Your task to perform on an android device: Open display settings Image 0: 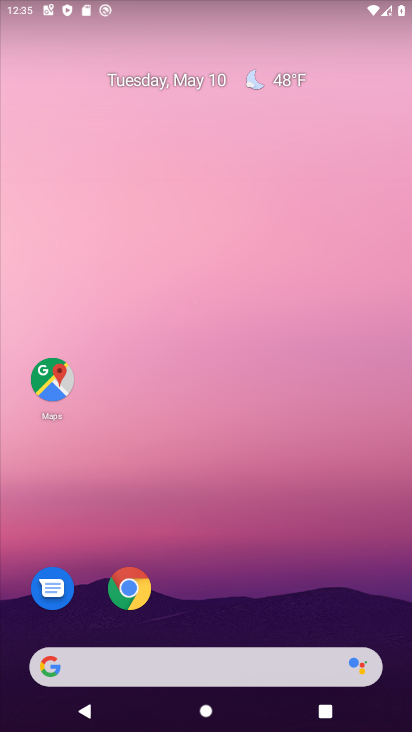
Step 0: drag from (253, 619) to (277, 190)
Your task to perform on an android device: Open display settings Image 1: 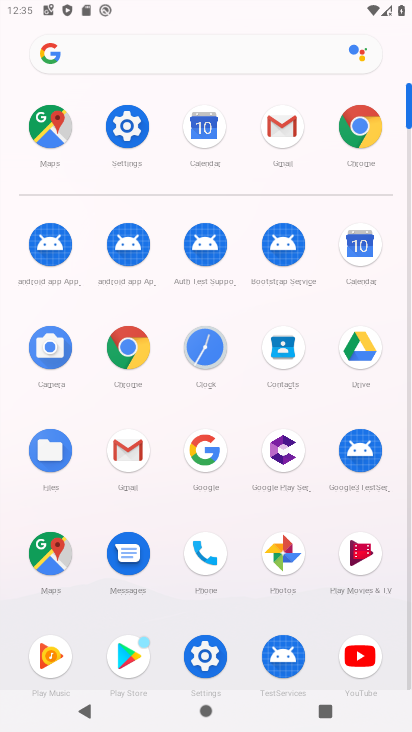
Step 1: click (120, 126)
Your task to perform on an android device: Open display settings Image 2: 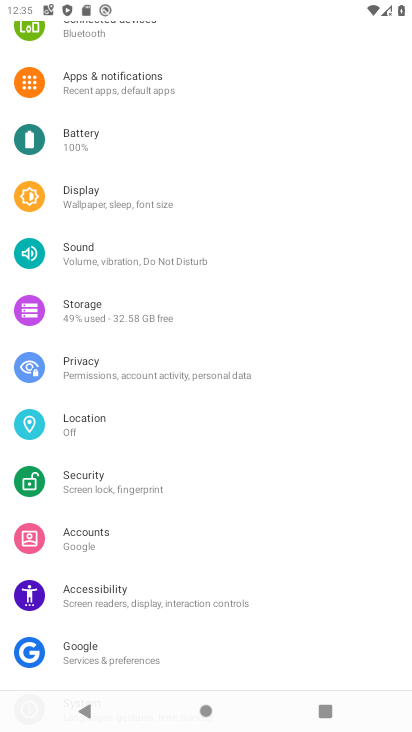
Step 2: click (105, 196)
Your task to perform on an android device: Open display settings Image 3: 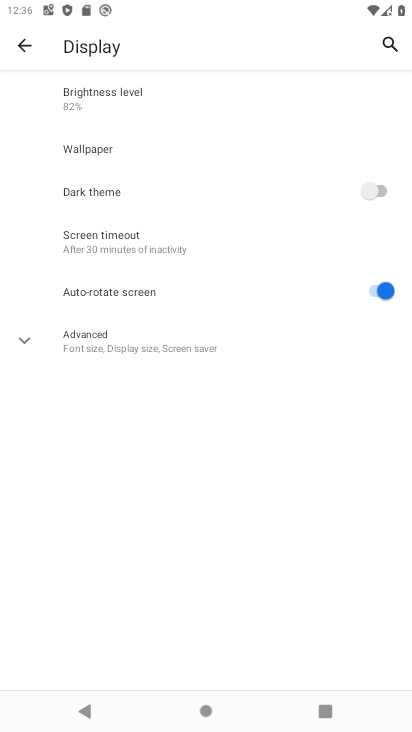
Step 3: task complete